Your task to perform on an android device: empty trash in the gmail app Image 0: 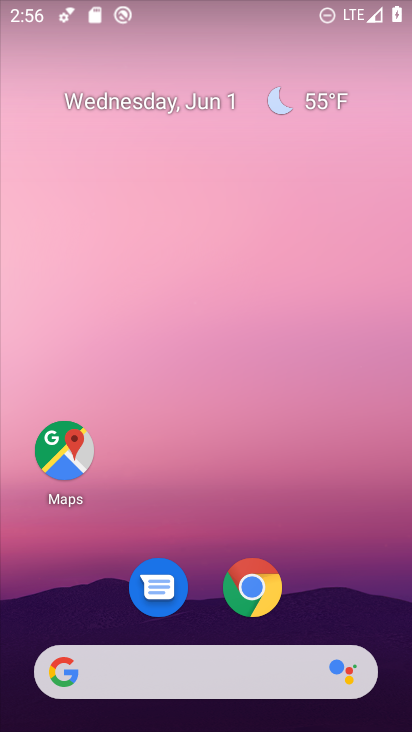
Step 0: drag from (167, 668) to (219, 131)
Your task to perform on an android device: empty trash in the gmail app Image 1: 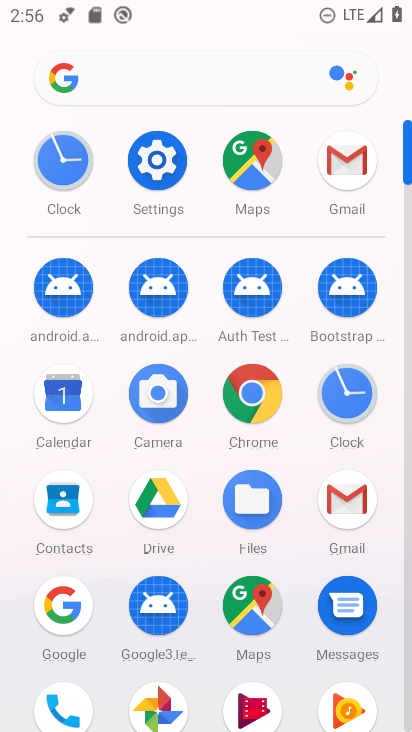
Step 1: click (333, 485)
Your task to perform on an android device: empty trash in the gmail app Image 2: 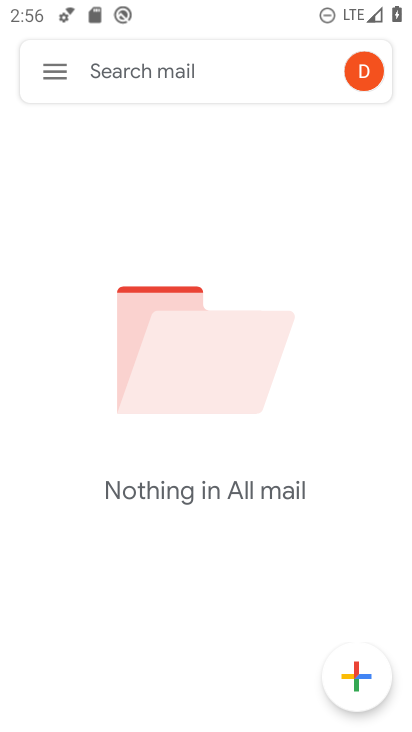
Step 2: click (48, 63)
Your task to perform on an android device: empty trash in the gmail app Image 3: 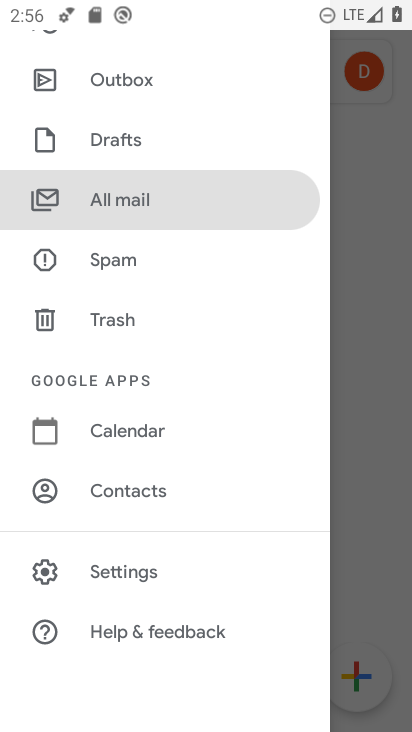
Step 3: click (115, 311)
Your task to perform on an android device: empty trash in the gmail app Image 4: 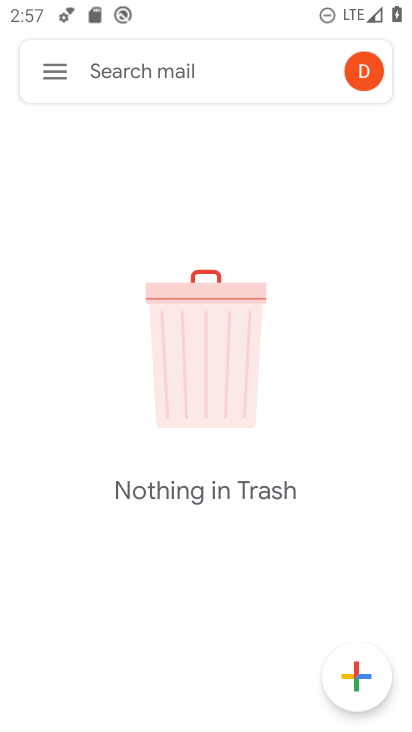
Step 4: task complete